Your task to perform on an android device: Search for "asus rog" on target, select the first entry, and add it to the cart. Image 0: 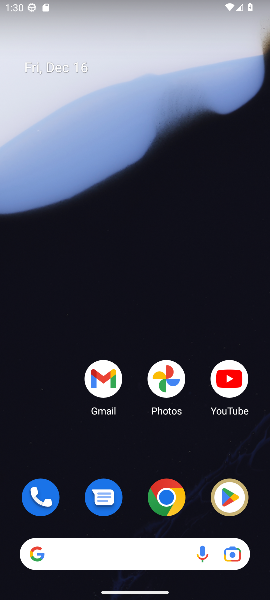
Step 0: click (164, 491)
Your task to perform on an android device: Search for "asus rog" on target, select the first entry, and add it to the cart. Image 1: 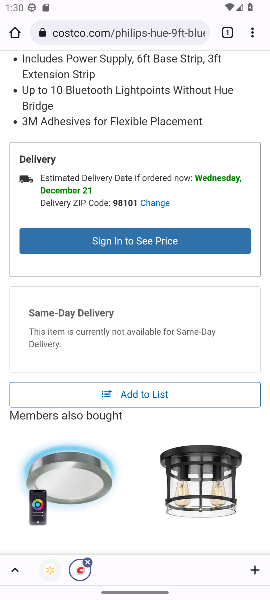
Step 1: click (97, 27)
Your task to perform on an android device: Search for "asus rog" on target, select the first entry, and add it to the cart. Image 2: 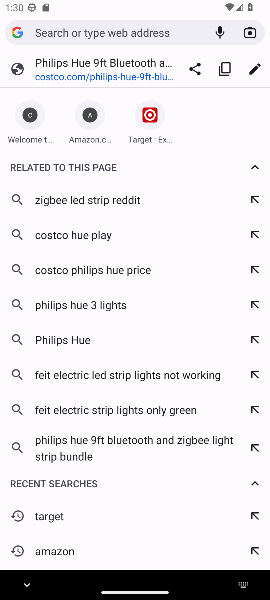
Step 2: click (149, 110)
Your task to perform on an android device: Search for "asus rog" on target, select the first entry, and add it to the cart. Image 3: 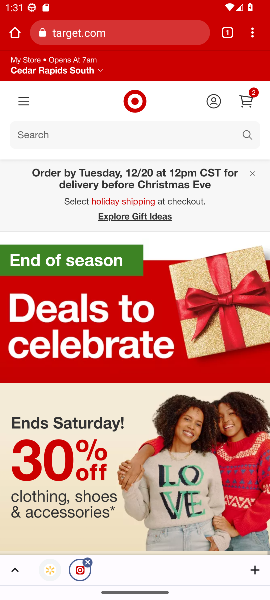
Step 3: click (187, 130)
Your task to perform on an android device: Search for "asus rog" on target, select the first entry, and add it to the cart. Image 4: 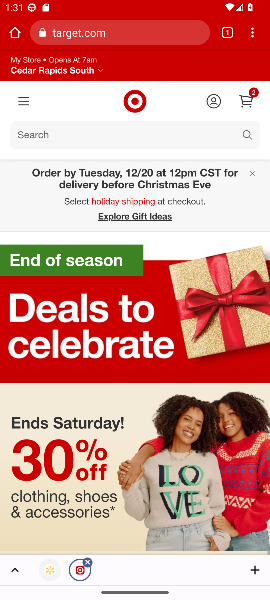
Step 4: click (187, 130)
Your task to perform on an android device: Search for "asus rog" on target, select the first entry, and add it to the cart. Image 5: 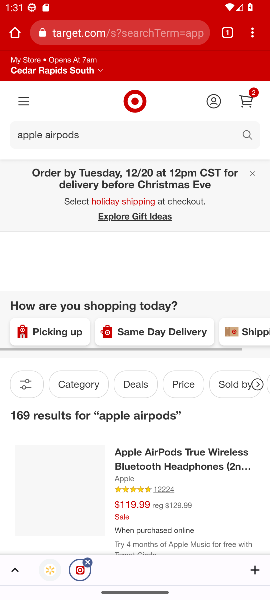
Step 5: click (245, 136)
Your task to perform on an android device: Search for "asus rog" on target, select the first entry, and add it to the cart. Image 6: 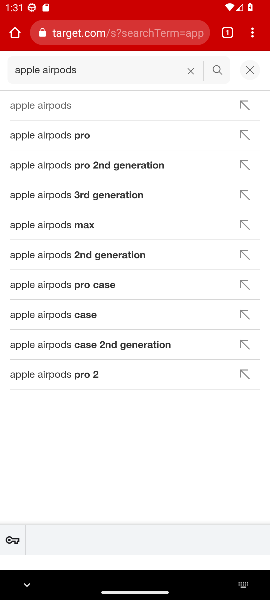
Step 6: click (188, 70)
Your task to perform on an android device: Search for "asus rog" on target, select the first entry, and add it to the cart. Image 7: 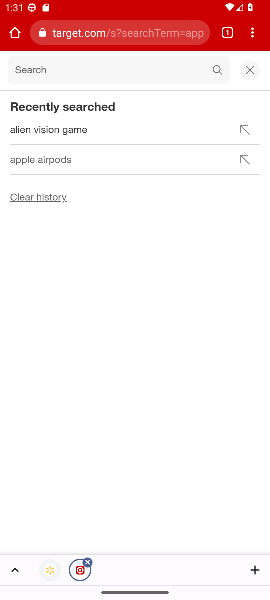
Step 7: type "asus rog"
Your task to perform on an android device: Search for "asus rog" on target, select the first entry, and add it to the cart. Image 8: 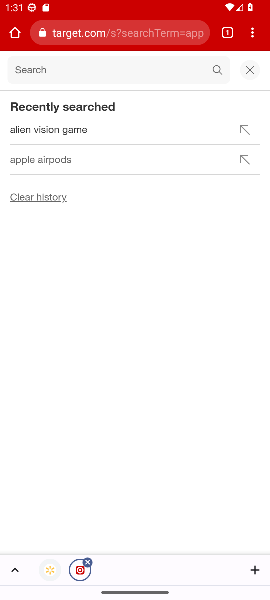
Step 8: click (98, 72)
Your task to perform on an android device: Search for "asus rog" on target, select the first entry, and add it to the cart. Image 9: 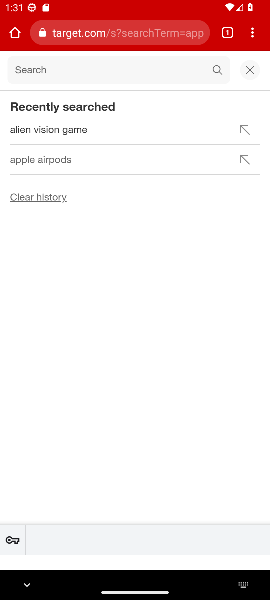
Step 9: type "asus rog"
Your task to perform on an android device: Search for "asus rog" on target, select the first entry, and add it to the cart. Image 10: 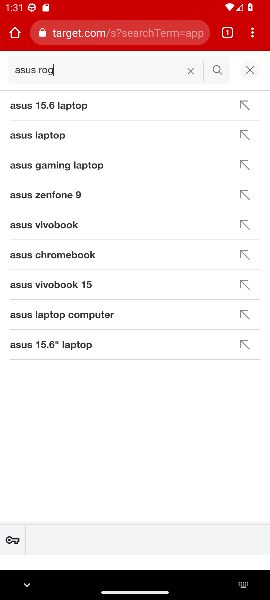
Step 10: click (71, 108)
Your task to perform on an android device: Search for "asus rog" on target, select the first entry, and add it to the cart. Image 11: 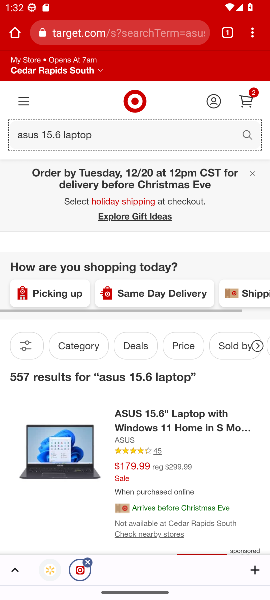
Step 11: click (202, 440)
Your task to perform on an android device: Search for "asus rog" on target, select the first entry, and add it to the cart. Image 12: 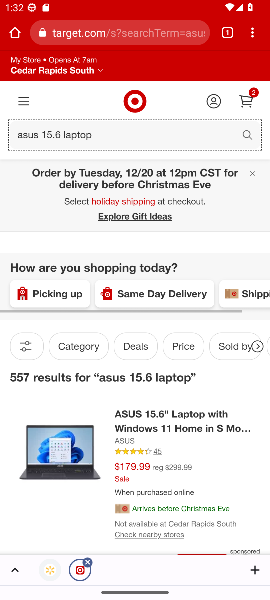
Step 12: click (204, 429)
Your task to perform on an android device: Search for "asus rog" on target, select the first entry, and add it to the cart. Image 13: 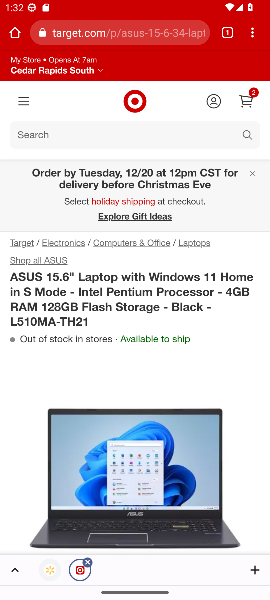
Step 13: drag from (210, 495) to (185, 134)
Your task to perform on an android device: Search for "asus rog" on target, select the first entry, and add it to the cart. Image 14: 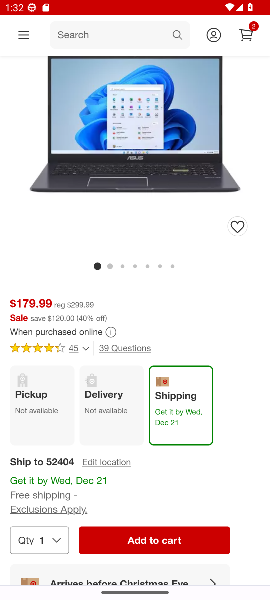
Step 14: click (152, 542)
Your task to perform on an android device: Search for "asus rog" on target, select the first entry, and add it to the cart. Image 15: 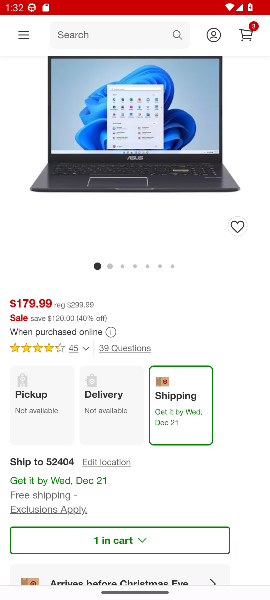
Step 15: task complete